Your task to perform on an android device: open chrome privacy settings Image 0: 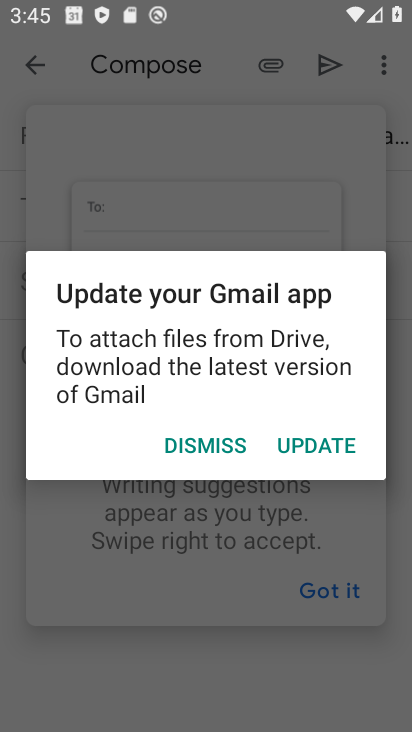
Step 0: press home button
Your task to perform on an android device: open chrome privacy settings Image 1: 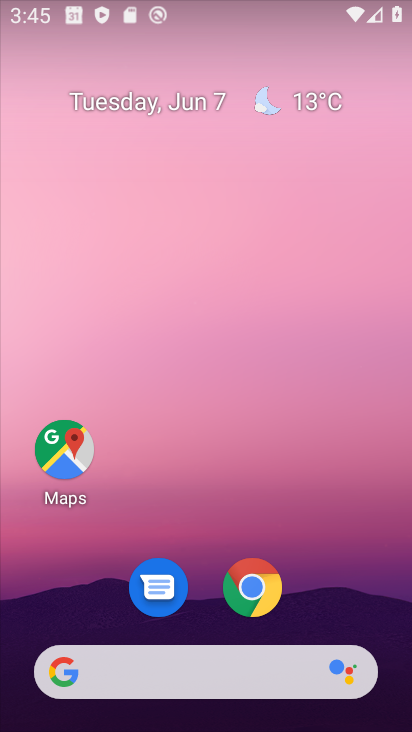
Step 1: drag from (262, 596) to (347, 8)
Your task to perform on an android device: open chrome privacy settings Image 2: 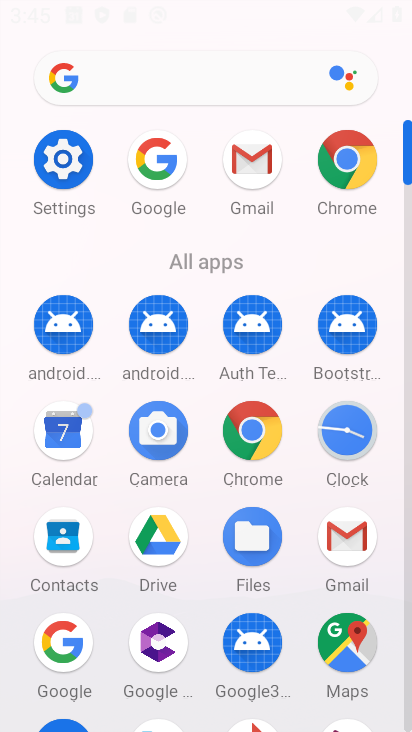
Step 2: click (283, 438)
Your task to perform on an android device: open chrome privacy settings Image 3: 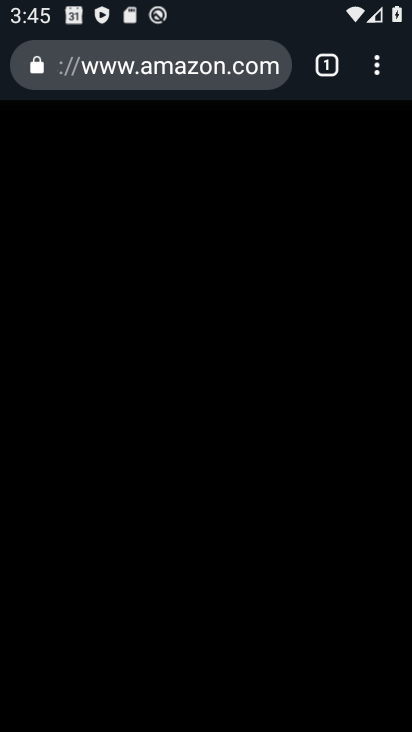
Step 3: click (374, 75)
Your task to perform on an android device: open chrome privacy settings Image 4: 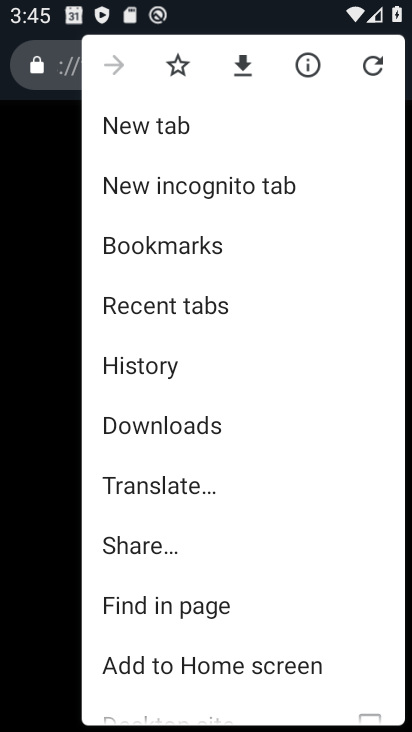
Step 4: drag from (207, 562) to (269, 363)
Your task to perform on an android device: open chrome privacy settings Image 5: 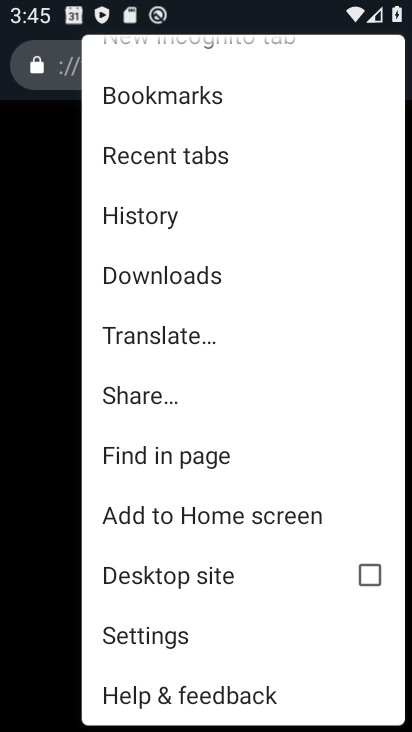
Step 5: click (220, 647)
Your task to perform on an android device: open chrome privacy settings Image 6: 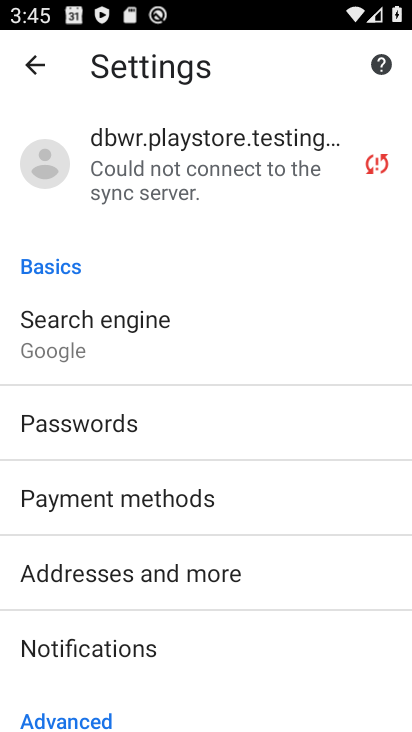
Step 6: drag from (198, 641) to (221, 264)
Your task to perform on an android device: open chrome privacy settings Image 7: 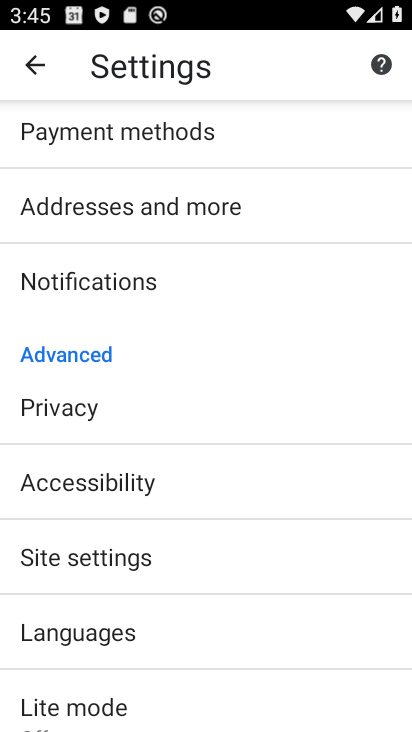
Step 7: click (80, 404)
Your task to perform on an android device: open chrome privacy settings Image 8: 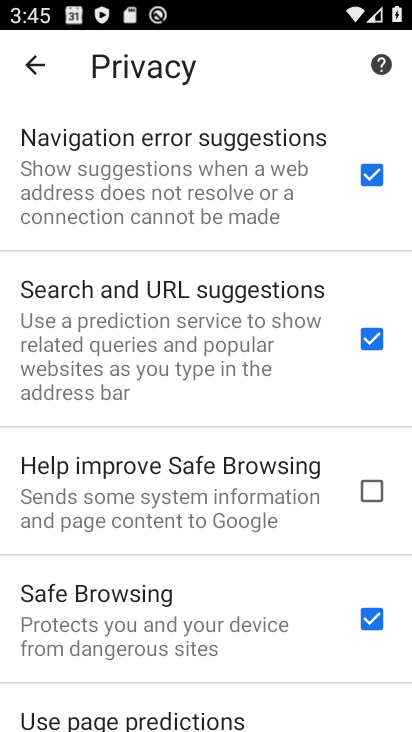
Step 8: task complete